Your task to perform on an android device: toggle priority inbox in the gmail app Image 0: 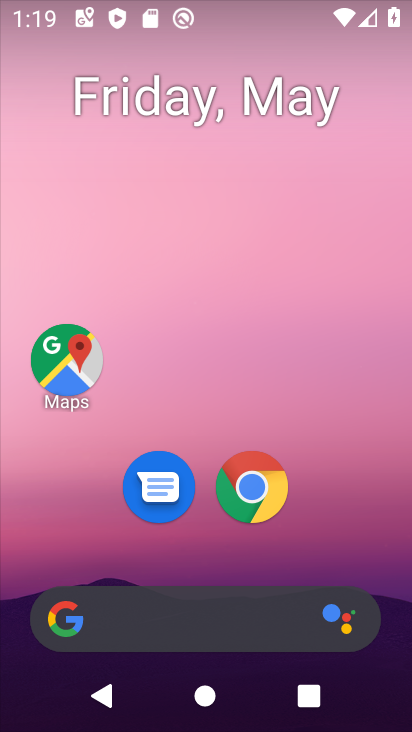
Step 0: drag from (210, 560) to (152, 217)
Your task to perform on an android device: toggle priority inbox in the gmail app Image 1: 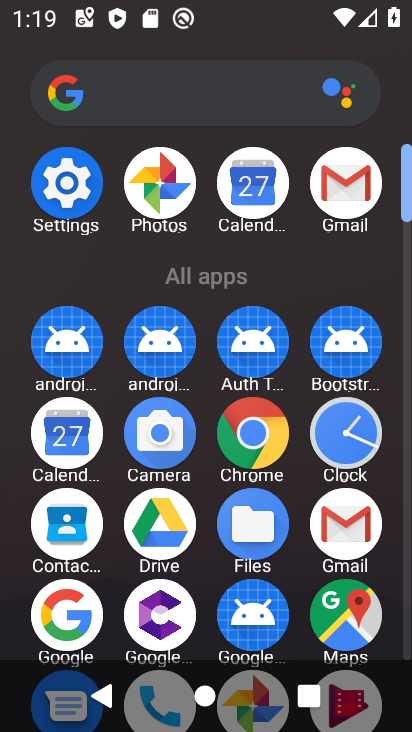
Step 1: click (363, 196)
Your task to perform on an android device: toggle priority inbox in the gmail app Image 2: 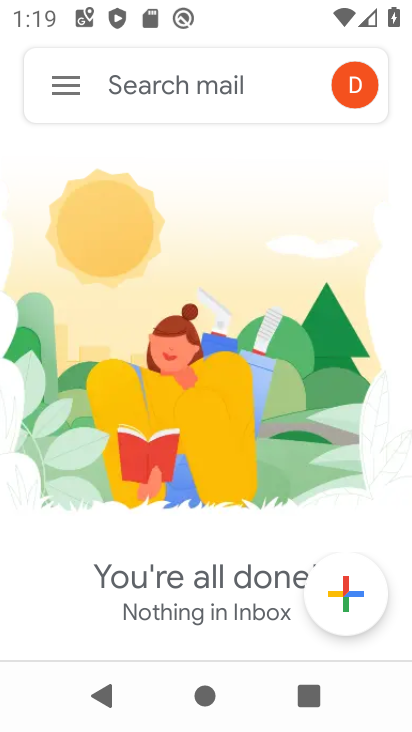
Step 2: click (68, 95)
Your task to perform on an android device: toggle priority inbox in the gmail app Image 3: 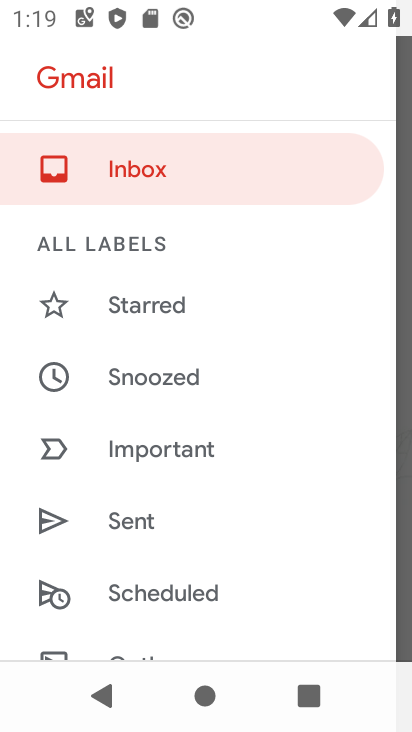
Step 3: drag from (127, 628) to (253, 200)
Your task to perform on an android device: toggle priority inbox in the gmail app Image 4: 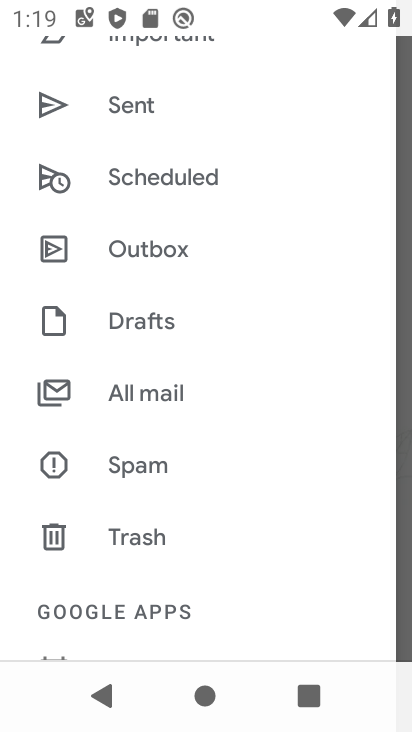
Step 4: drag from (81, 646) to (124, 279)
Your task to perform on an android device: toggle priority inbox in the gmail app Image 5: 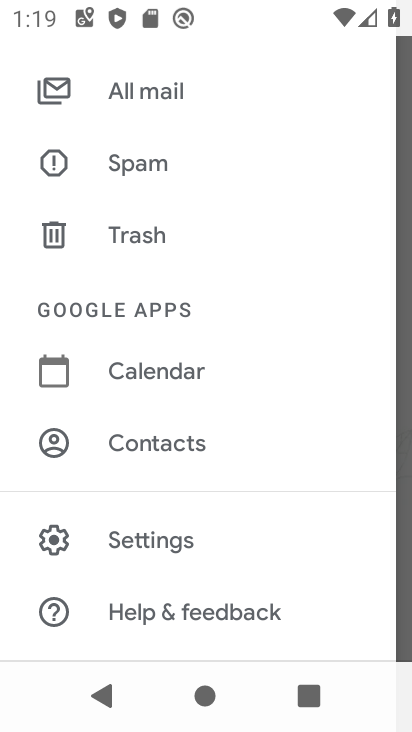
Step 5: click (122, 560)
Your task to perform on an android device: toggle priority inbox in the gmail app Image 6: 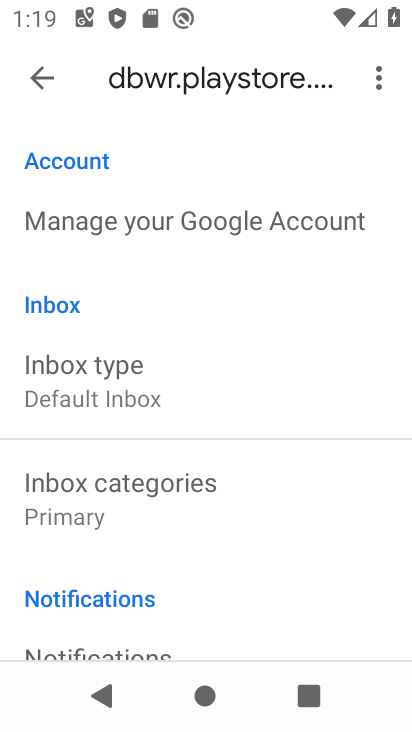
Step 6: click (226, 394)
Your task to perform on an android device: toggle priority inbox in the gmail app Image 7: 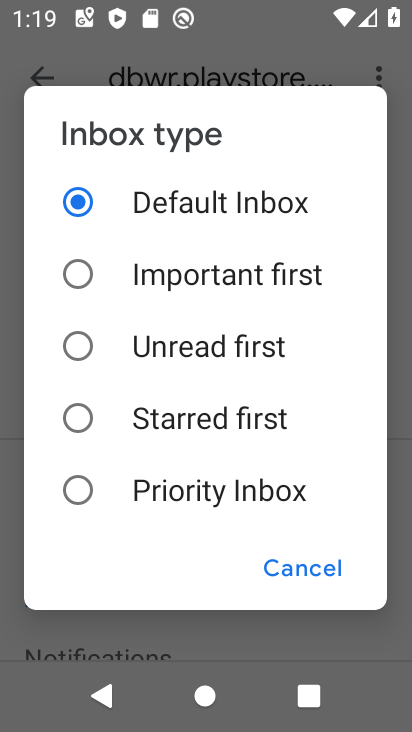
Step 7: click (195, 480)
Your task to perform on an android device: toggle priority inbox in the gmail app Image 8: 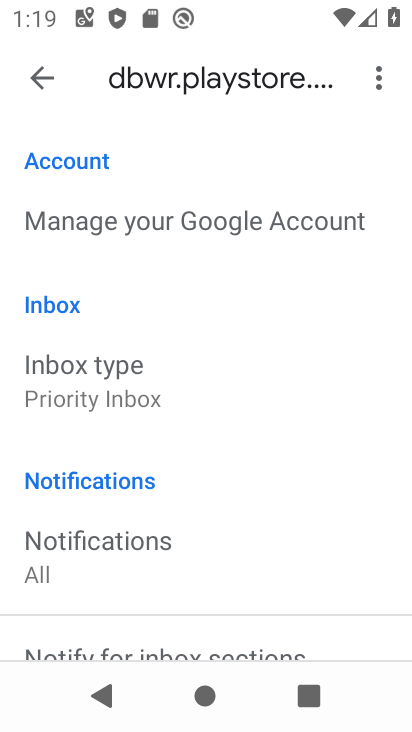
Step 8: task complete